Your task to perform on an android device: turn on priority inbox in the gmail app Image 0: 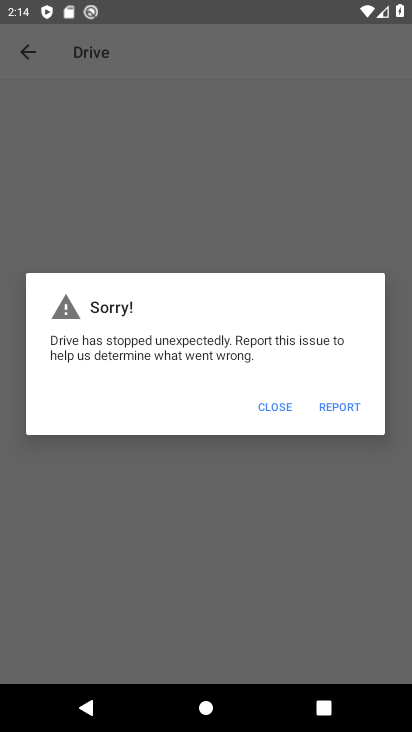
Step 0: press back button
Your task to perform on an android device: turn on priority inbox in the gmail app Image 1: 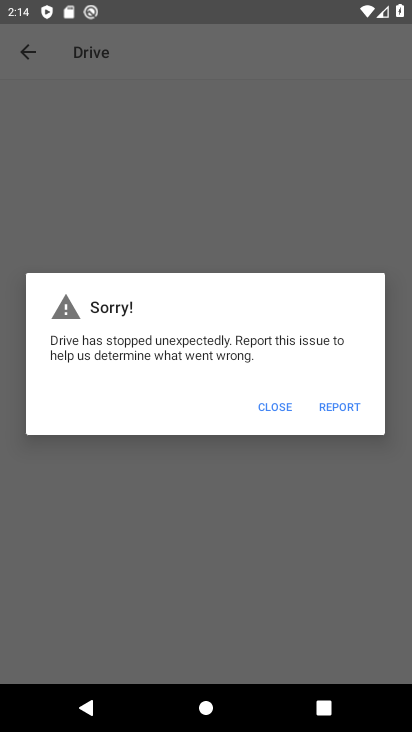
Step 1: press home button
Your task to perform on an android device: turn on priority inbox in the gmail app Image 2: 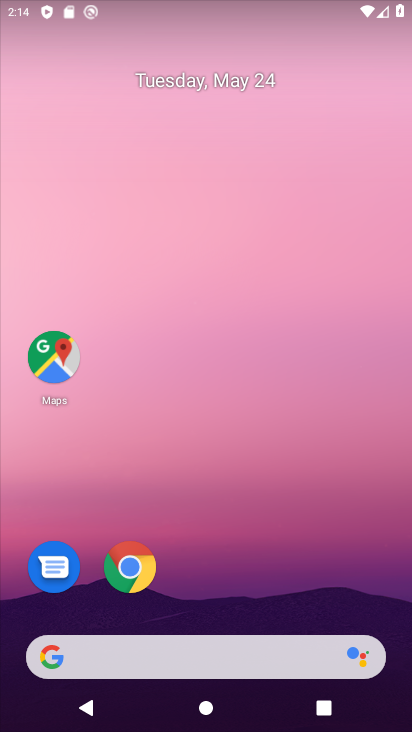
Step 2: drag from (235, 506) to (299, 4)
Your task to perform on an android device: turn on priority inbox in the gmail app Image 3: 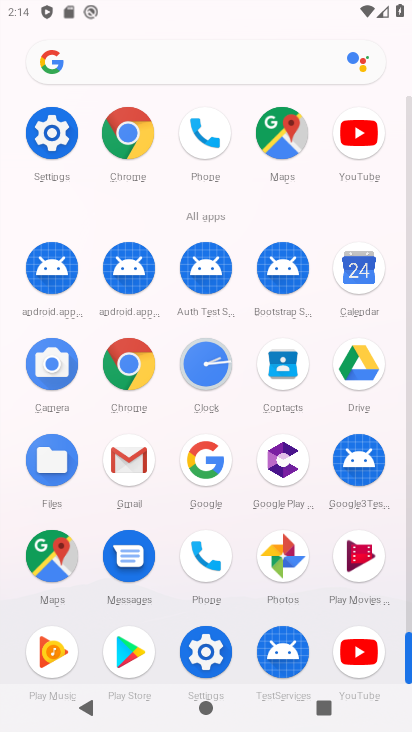
Step 3: click (133, 475)
Your task to perform on an android device: turn on priority inbox in the gmail app Image 4: 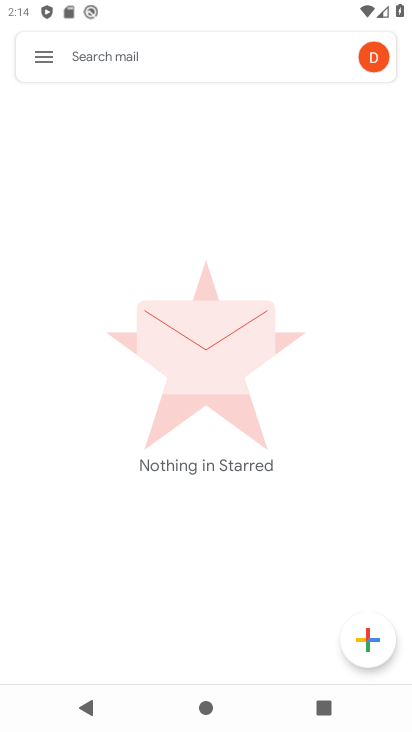
Step 4: click (36, 52)
Your task to perform on an android device: turn on priority inbox in the gmail app Image 5: 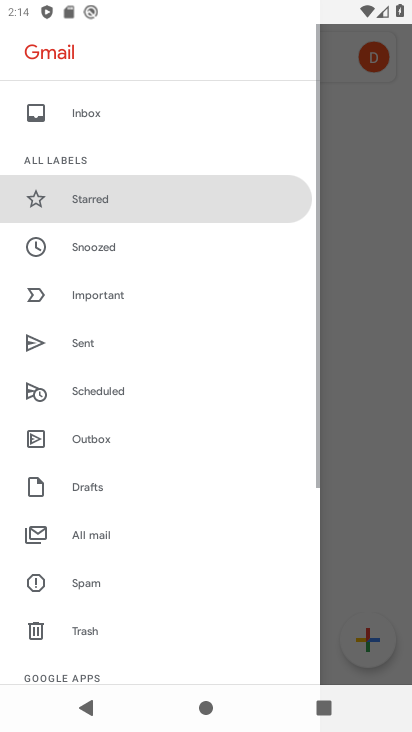
Step 5: drag from (122, 651) to (193, 86)
Your task to perform on an android device: turn on priority inbox in the gmail app Image 6: 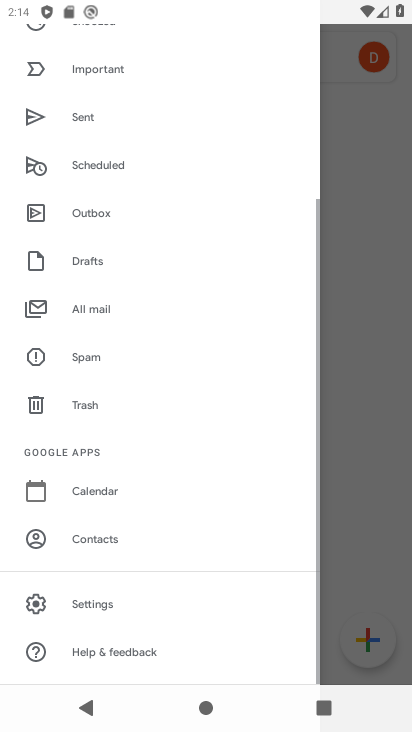
Step 6: click (87, 606)
Your task to perform on an android device: turn on priority inbox in the gmail app Image 7: 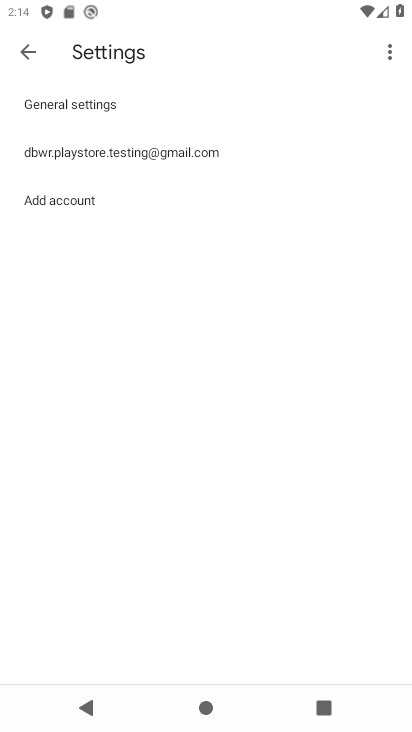
Step 7: click (86, 120)
Your task to perform on an android device: turn on priority inbox in the gmail app Image 8: 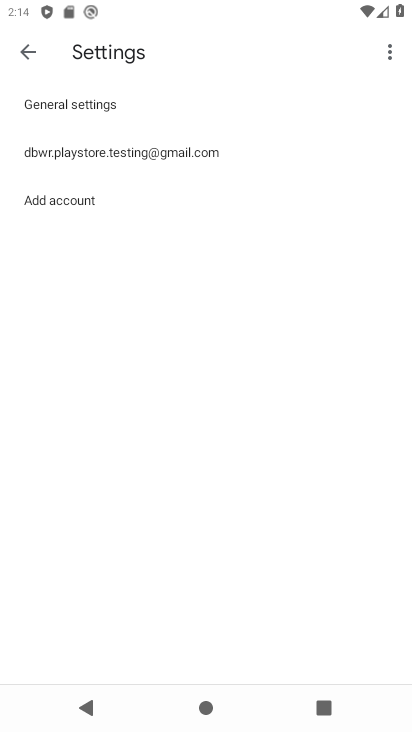
Step 8: click (73, 149)
Your task to perform on an android device: turn on priority inbox in the gmail app Image 9: 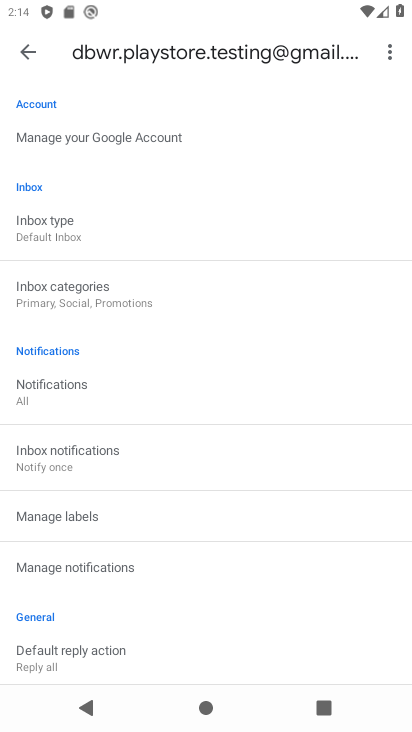
Step 9: click (104, 222)
Your task to perform on an android device: turn on priority inbox in the gmail app Image 10: 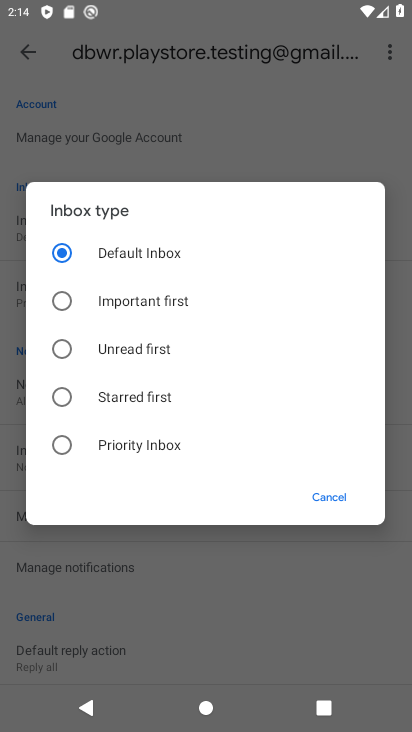
Step 10: click (61, 444)
Your task to perform on an android device: turn on priority inbox in the gmail app Image 11: 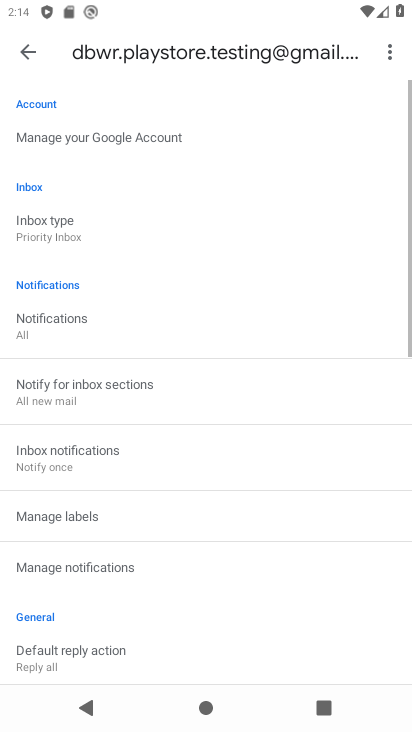
Step 11: task complete